Your task to perform on an android device: open wifi settings Image 0: 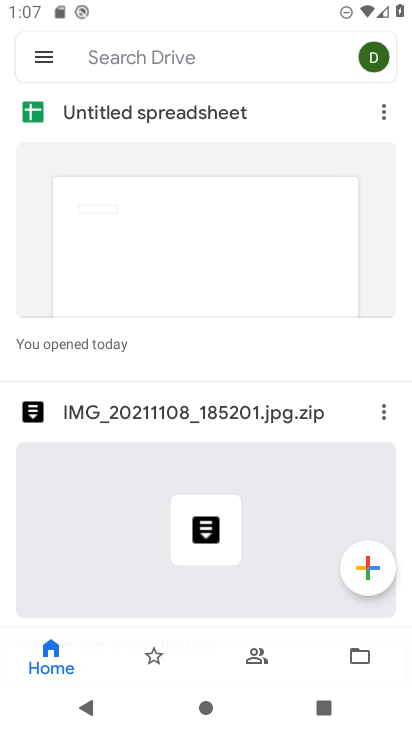
Step 0: press home button
Your task to perform on an android device: open wifi settings Image 1: 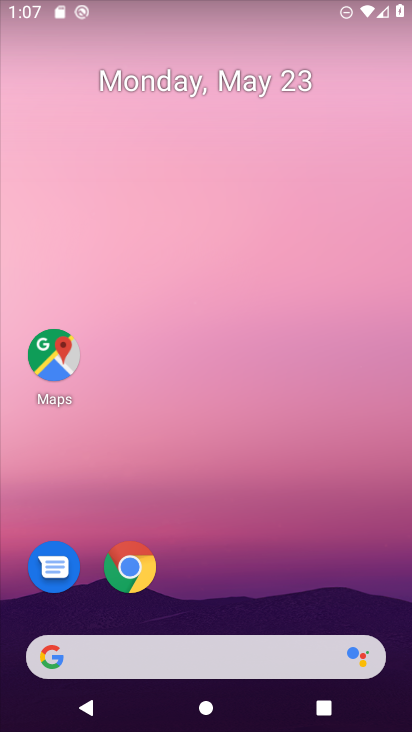
Step 1: drag from (264, 0) to (238, 720)
Your task to perform on an android device: open wifi settings Image 2: 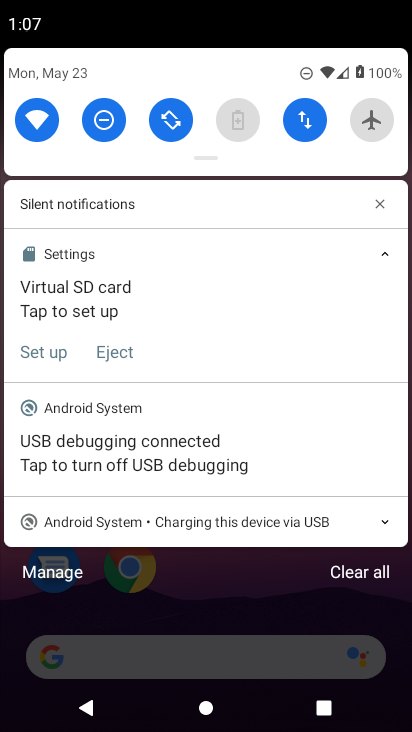
Step 2: click (41, 124)
Your task to perform on an android device: open wifi settings Image 3: 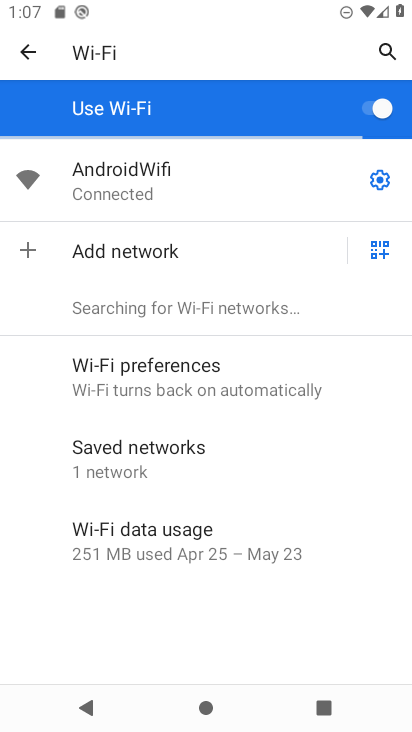
Step 3: task complete